Your task to perform on an android device: allow notifications from all sites in the chrome app Image 0: 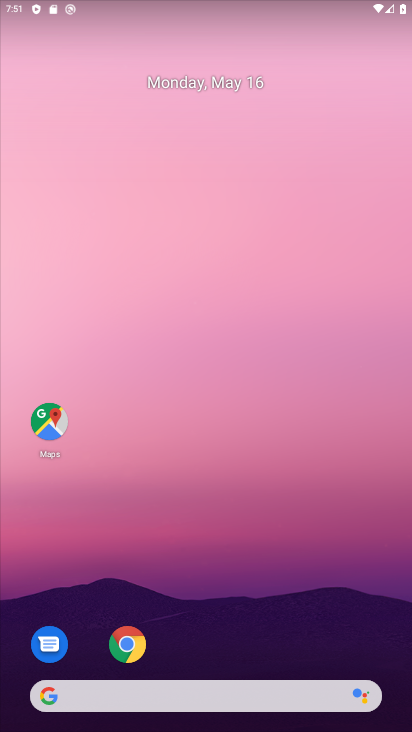
Step 0: click (134, 650)
Your task to perform on an android device: allow notifications from all sites in the chrome app Image 1: 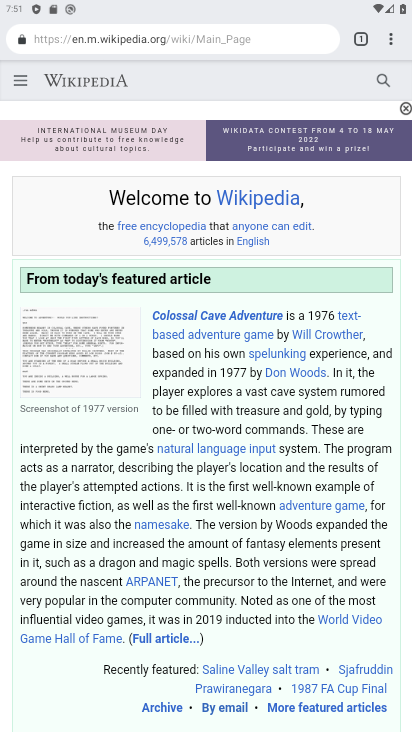
Step 1: click (392, 38)
Your task to perform on an android device: allow notifications from all sites in the chrome app Image 2: 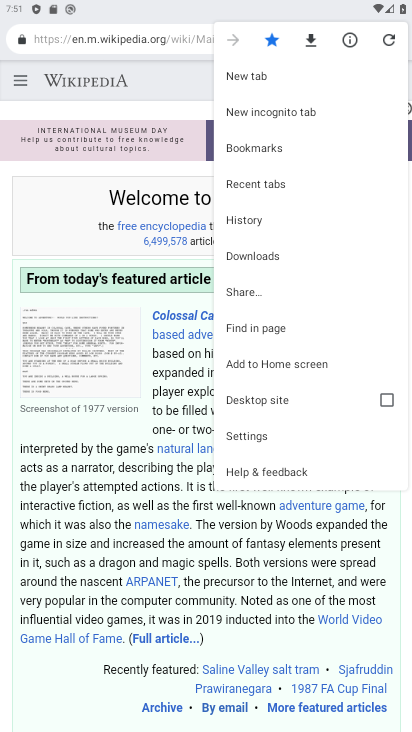
Step 2: click (265, 436)
Your task to perform on an android device: allow notifications from all sites in the chrome app Image 3: 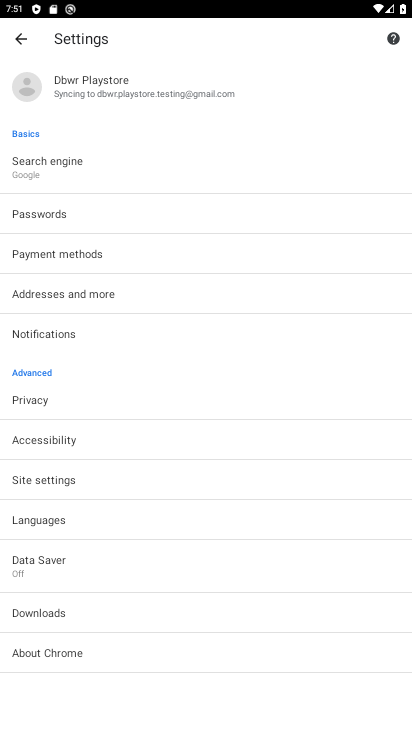
Step 3: drag from (232, 551) to (335, 244)
Your task to perform on an android device: allow notifications from all sites in the chrome app Image 4: 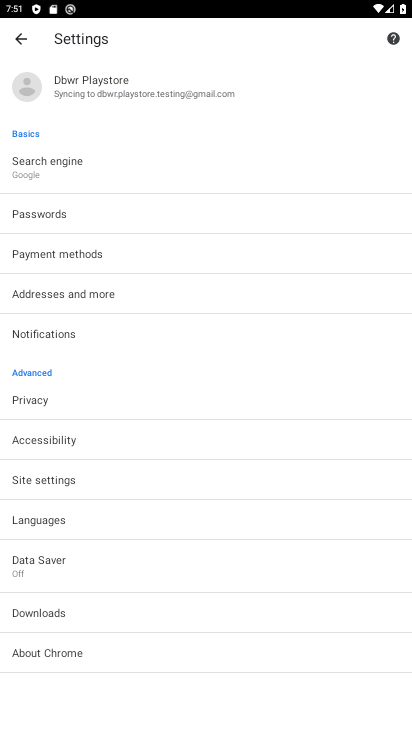
Step 4: click (201, 492)
Your task to perform on an android device: allow notifications from all sites in the chrome app Image 5: 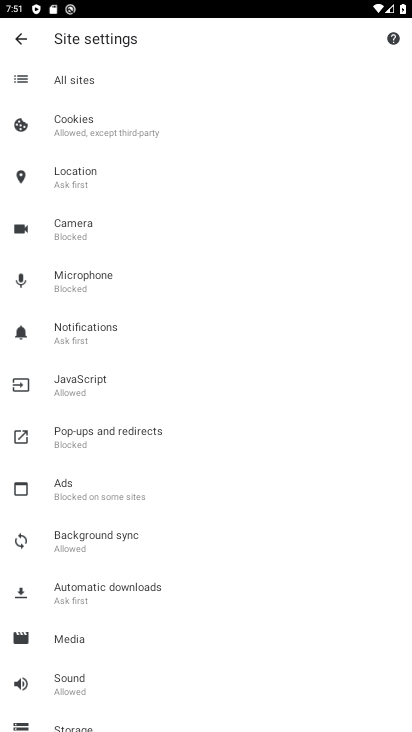
Step 5: drag from (195, 558) to (238, 154)
Your task to perform on an android device: allow notifications from all sites in the chrome app Image 6: 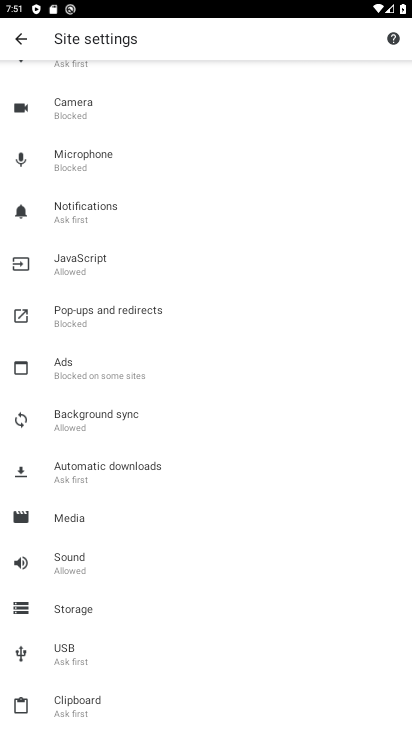
Step 6: click (164, 226)
Your task to perform on an android device: allow notifications from all sites in the chrome app Image 7: 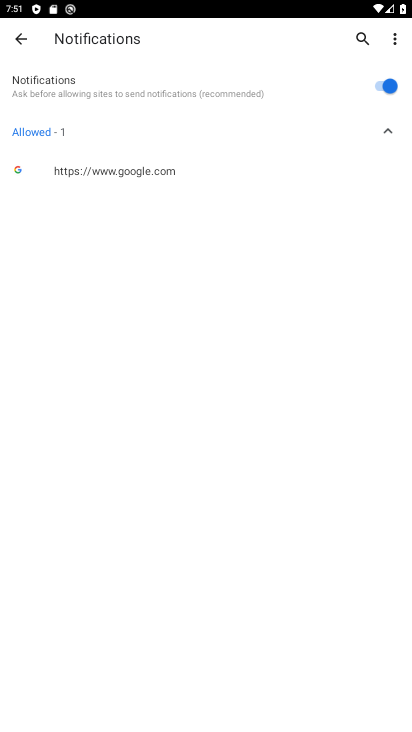
Step 7: task complete